Your task to perform on an android device: Search for Italian restaurants on Maps Image 0: 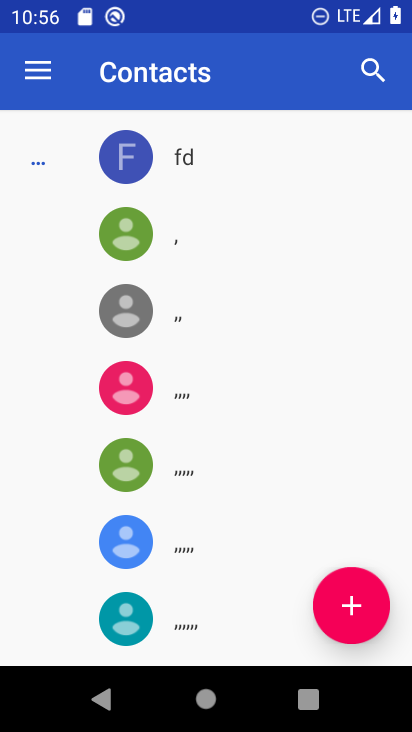
Step 0: press home button
Your task to perform on an android device: Search for Italian restaurants on Maps Image 1: 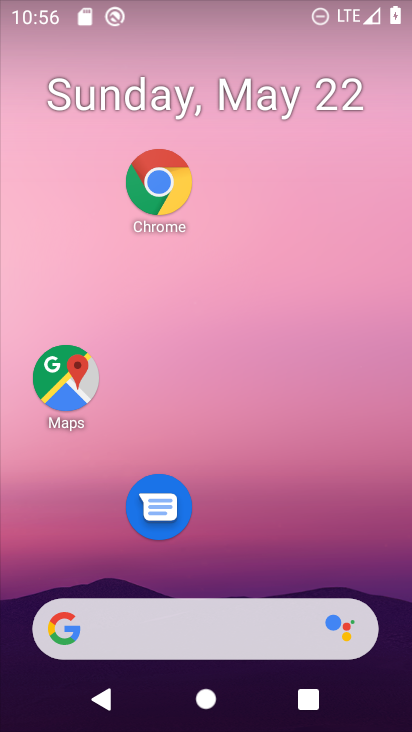
Step 1: click (81, 387)
Your task to perform on an android device: Search for Italian restaurants on Maps Image 2: 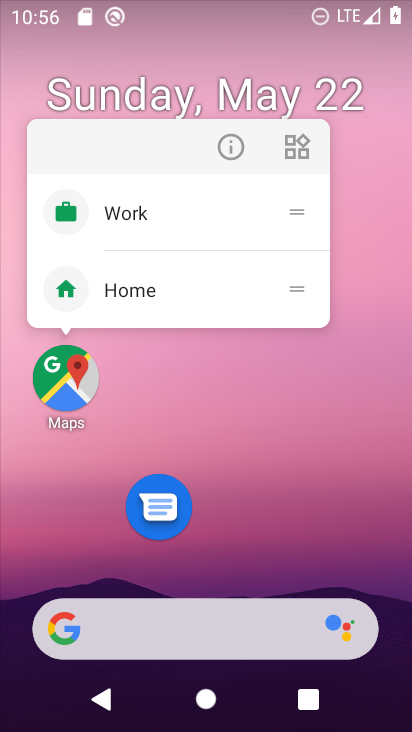
Step 2: click (71, 377)
Your task to perform on an android device: Search for Italian restaurants on Maps Image 3: 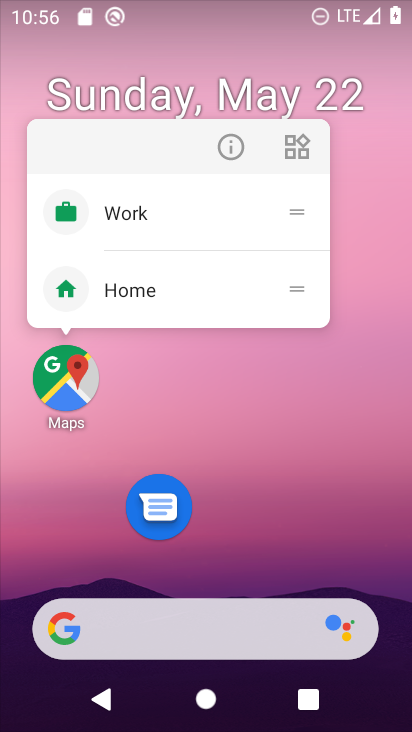
Step 3: click (71, 379)
Your task to perform on an android device: Search for Italian restaurants on Maps Image 4: 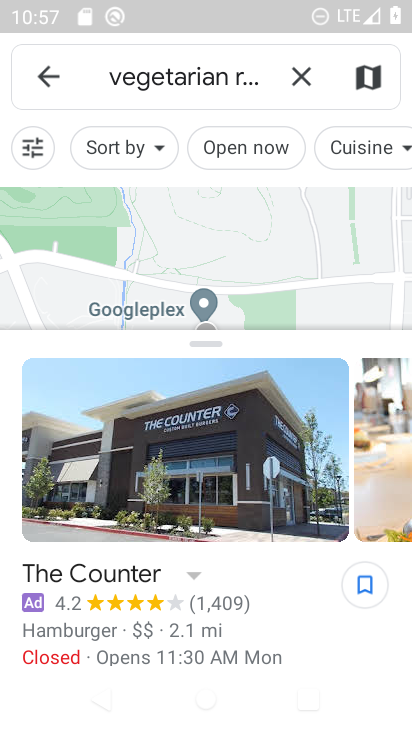
Step 4: click (300, 76)
Your task to perform on an android device: Search for Italian restaurants on Maps Image 5: 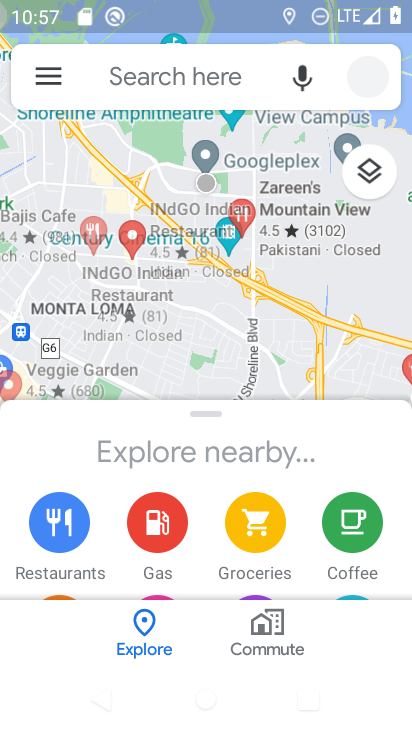
Step 5: click (210, 81)
Your task to perform on an android device: Search for Italian restaurants on Maps Image 6: 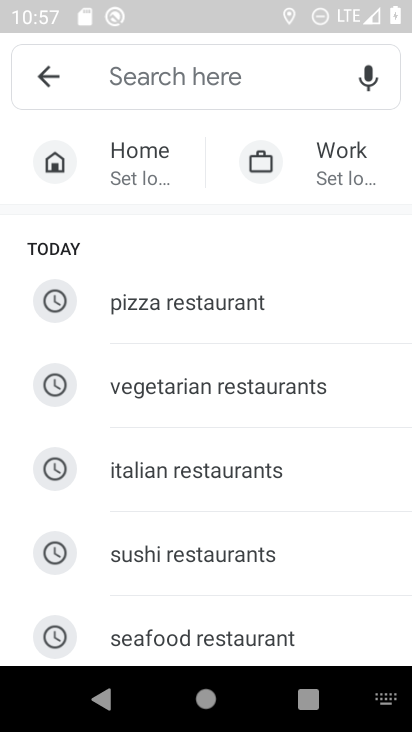
Step 6: click (222, 466)
Your task to perform on an android device: Search for Italian restaurants on Maps Image 7: 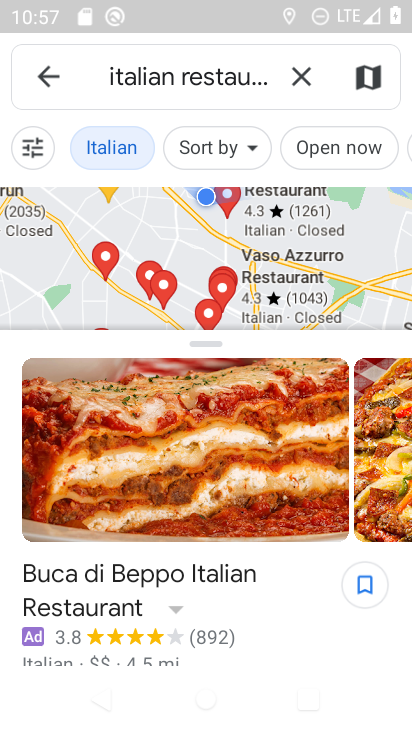
Step 7: task complete